Your task to perform on an android device: turn off translation in the chrome app Image 0: 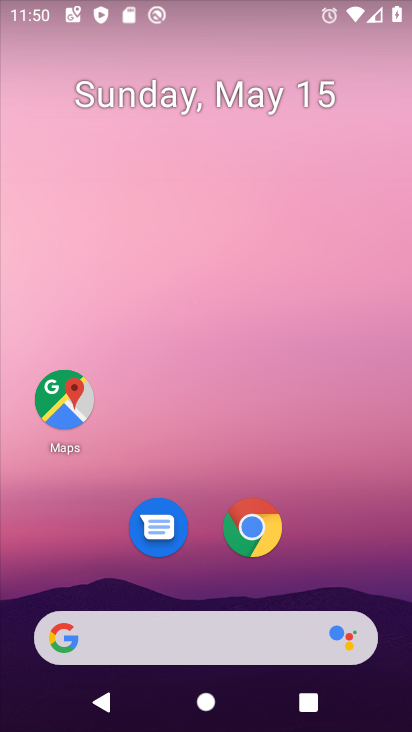
Step 0: click (260, 546)
Your task to perform on an android device: turn off translation in the chrome app Image 1: 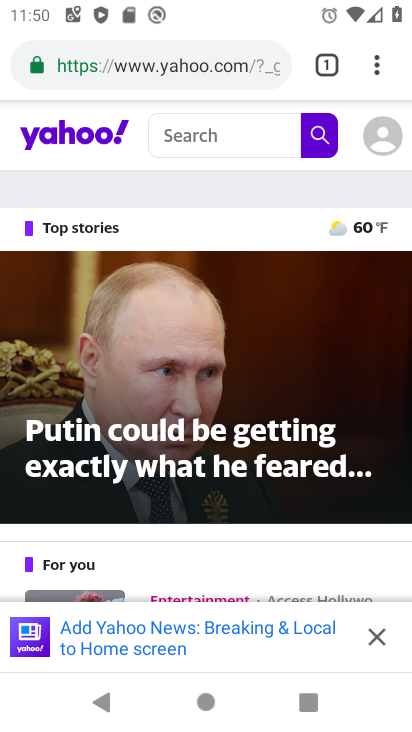
Step 1: click (379, 84)
Your task to perform on an android device: turn off translation in the chrome app Image 2: 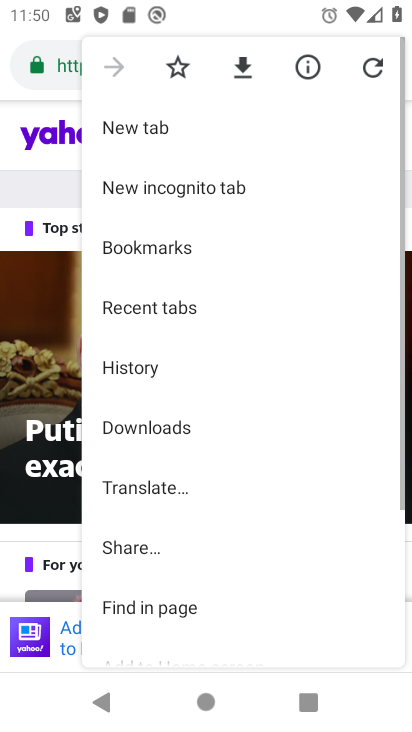
Step 2: drag from (219, 531) to (260, 323)
Your task to perform on an android device: turn off translation in the chrome app Image 3: 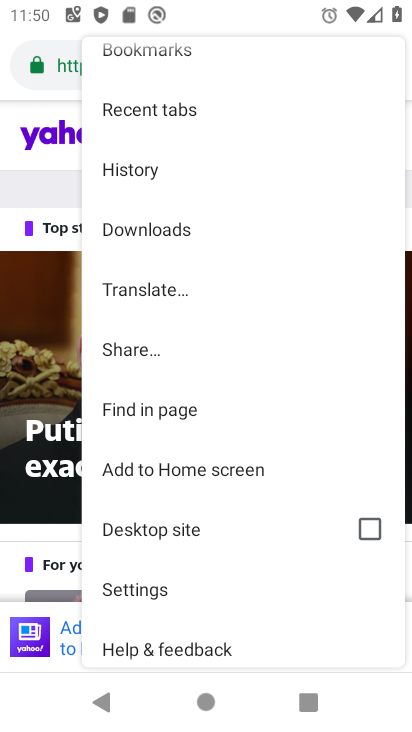
Step 3: click (177, 578)
Your task to perform on an android device: turn off translation in the chrome app Image 4: 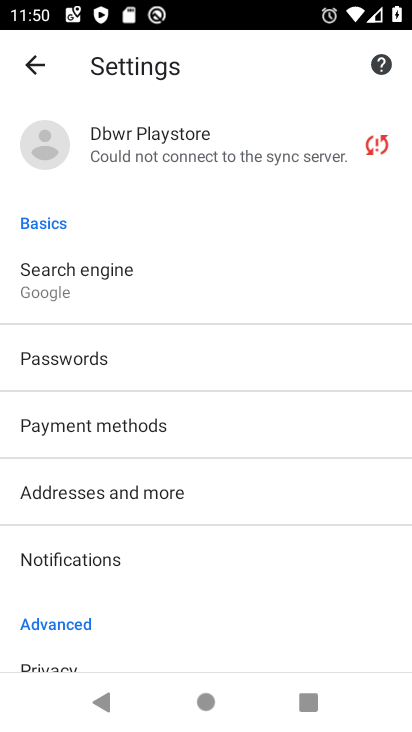
Step 4: drag from (143, 593) to (180, 472)
Your task to perform on an android device: turn off translation in the chrome app Image 5: 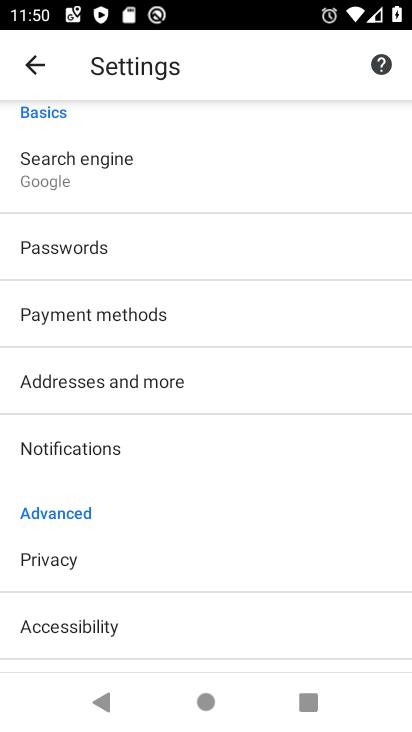
Step 5: drag from (128, 584) to (200, 259)
Your task to perform on an android device: turn off translation in the chrome app Image 6: 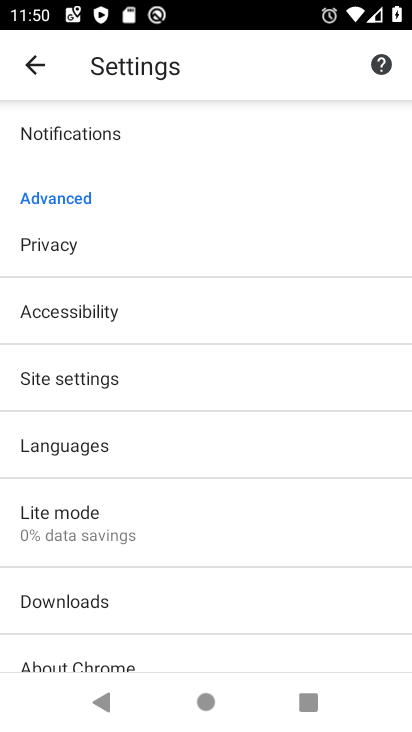
Step 6: click (134, 448)
Your task to perform on an android device: turn off translation in the chrome app Image 7: 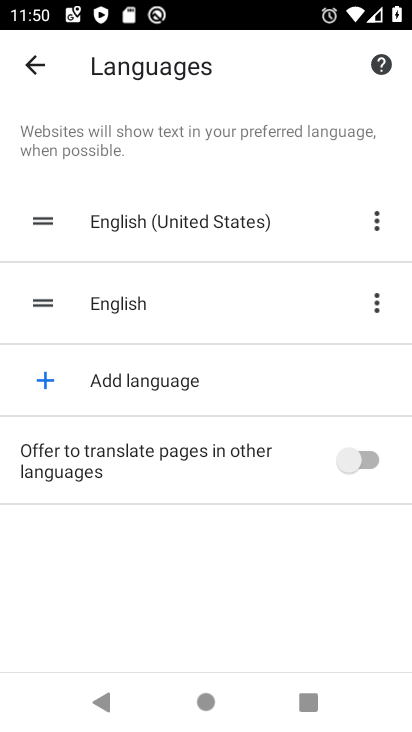
Step 7: click (351, 458)
Your task to perform on an android device: turn off translation in the chrome app Image 8: 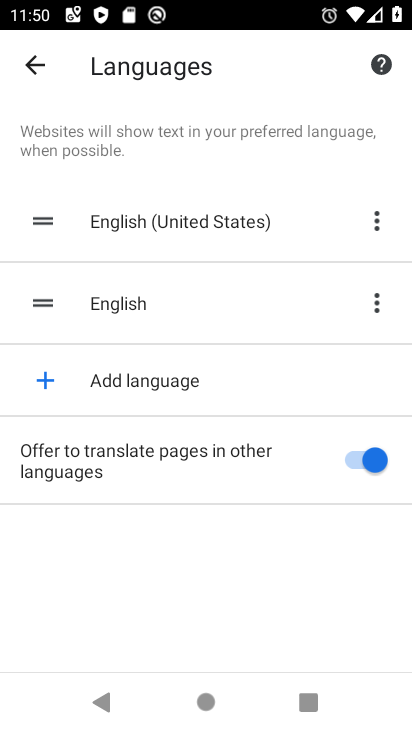
Step 8: task complete